Your task to perform on an android device: turn on sleep mode Image 0: 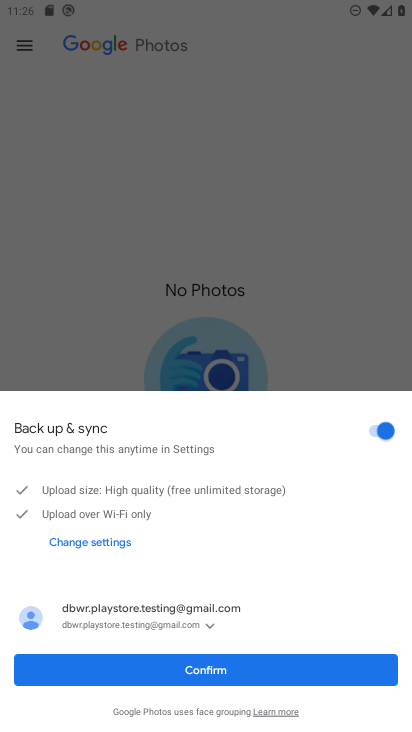
Step 0: press home button
Your task to perform on an android device: turn on sleep mode Image 1: 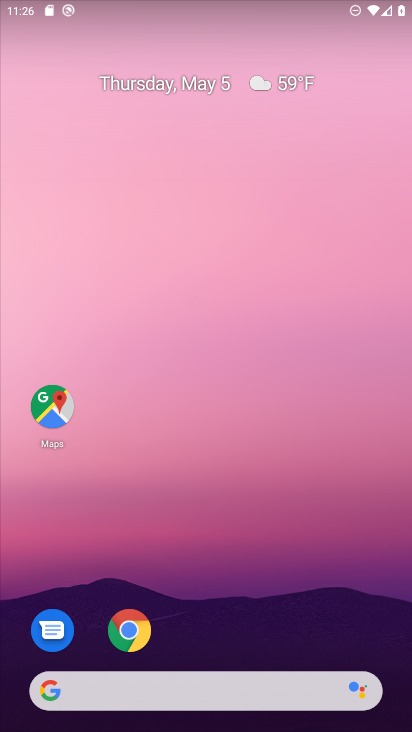
Step 1: drag from (279, 554) to (283, 27)
Your task to perform on an android device: turn on sleep mode Image 2: 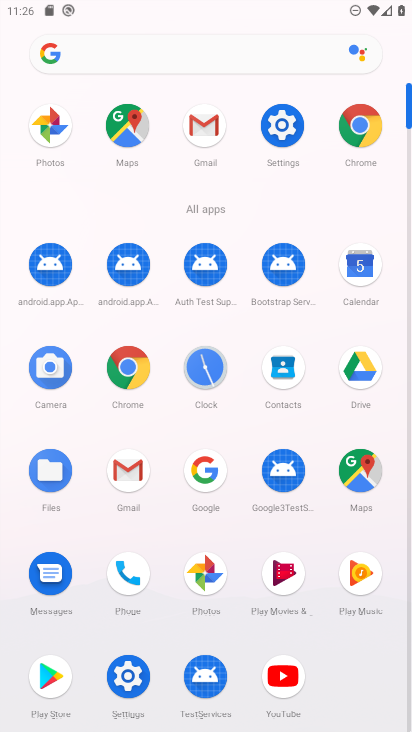
Step 2: click (276, 134)
Your task to perform on an android device: turn on sleep mode Image 3: 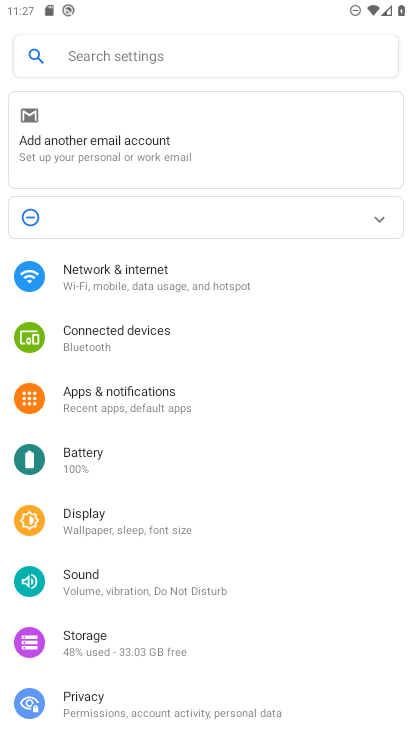
Step 3: click (119, 529)
Your task to perform on an android device: turn on sleep mode Image 4: 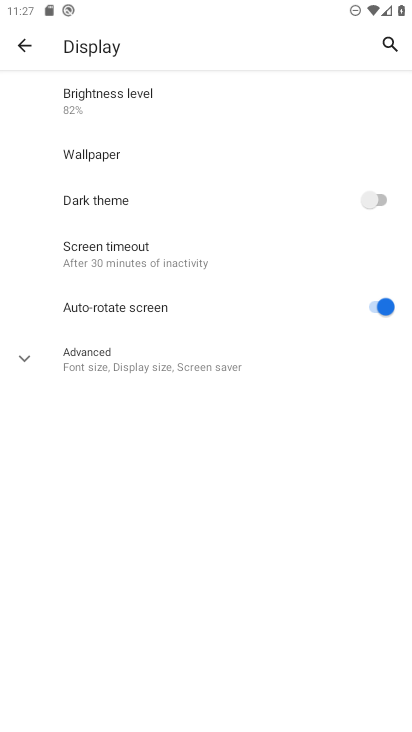
Step 4: click (115, 258)
Your task to perform on an android device: turn on sleep mode Image 5: 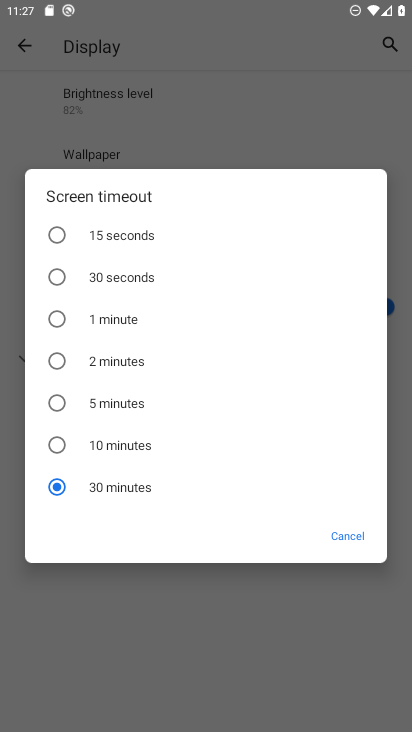
Step 5: task complete